Your task to perform on an android device: turn off notifications in google photos Image 0: 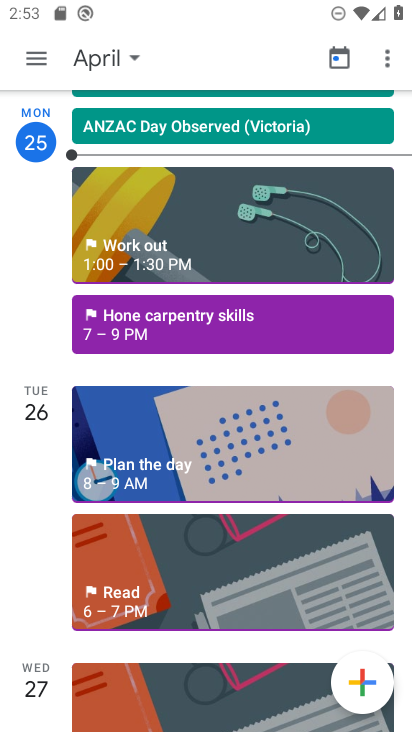
Step 0: press home button
Your task to perform on an android device: turn off notifications in google photos Image 1: 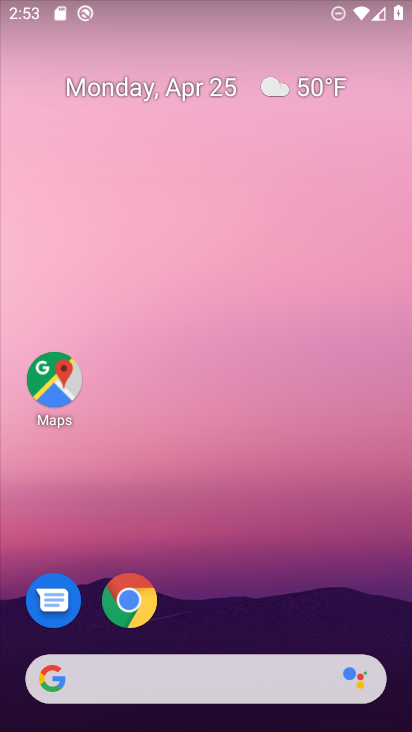
Step 1: drag from (202, 652) to (327, 38)
Your task to perform on an android device: turn off notifications in google photos Image 2: 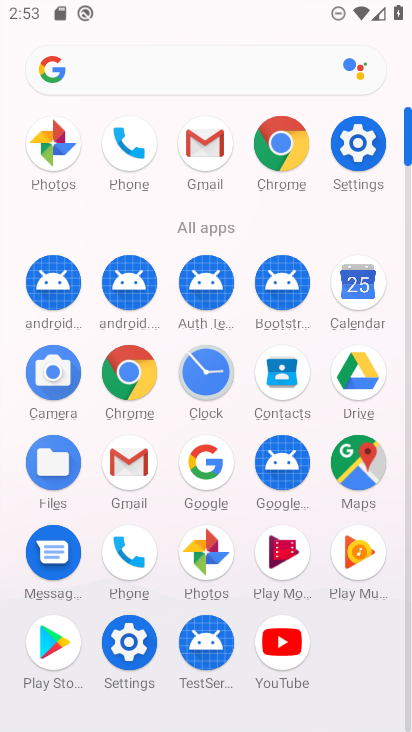
Step 2: click (196, 558)
Your task to perform on an android device: turn off notifications in google photos Image 3: 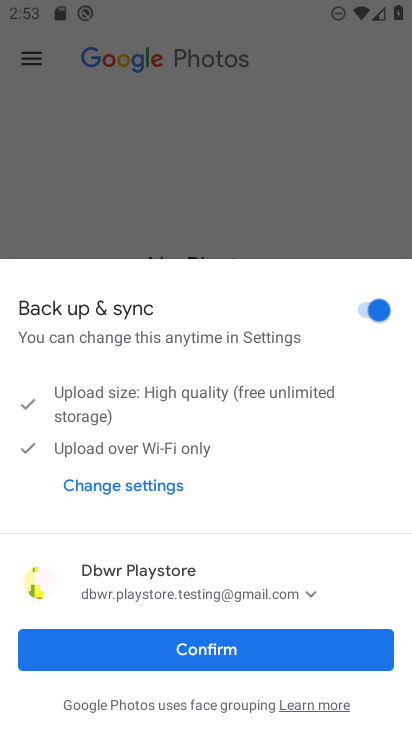
Step 3: click (187, 639)
Your task to perform on an android device: turn off notifications in google photos Image 4: 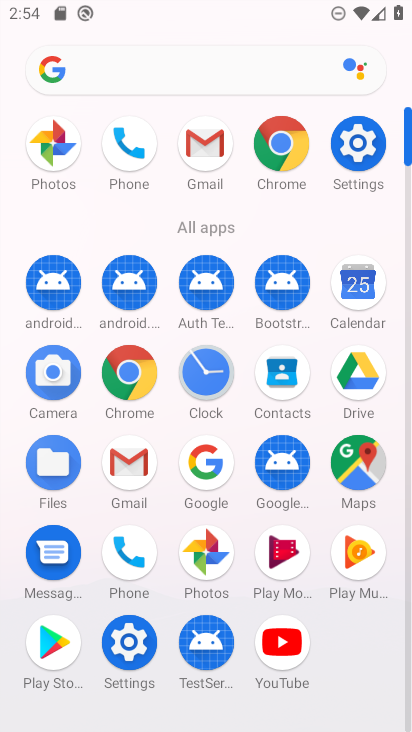
Step 4: click (212, 572)
Your task to perform on an android device: turn off notifications in google photos Image 5: 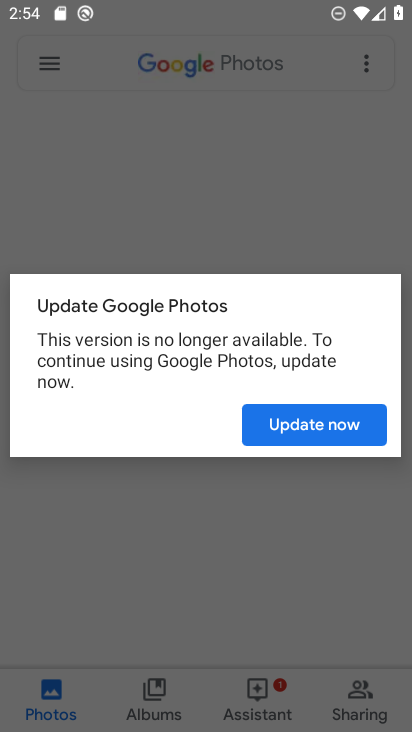
Step 5: click (331, 414)
Your task to perform on an android device: turn off notifications in google photos Image 6: 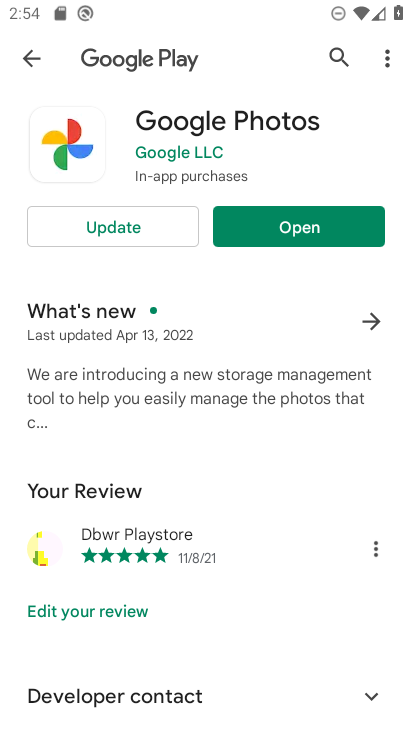
Step 6: click (295, 227)
Your task to perform on an android device: turn off notifications in google photos Image 7: 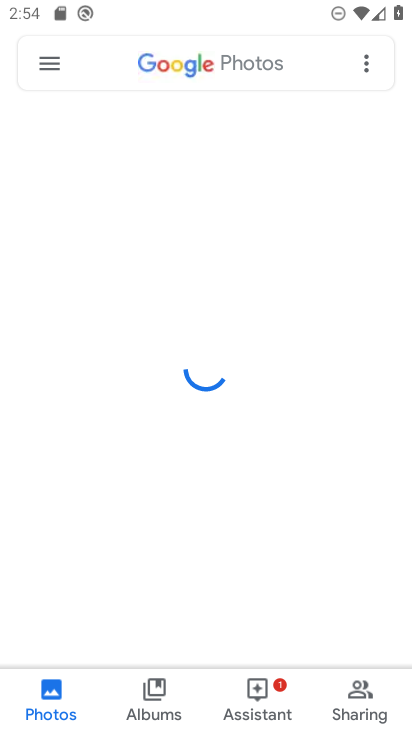
Step 7: click (47, 65)
Your task to perform on an android device: turn off notifications in google photos Image 8: 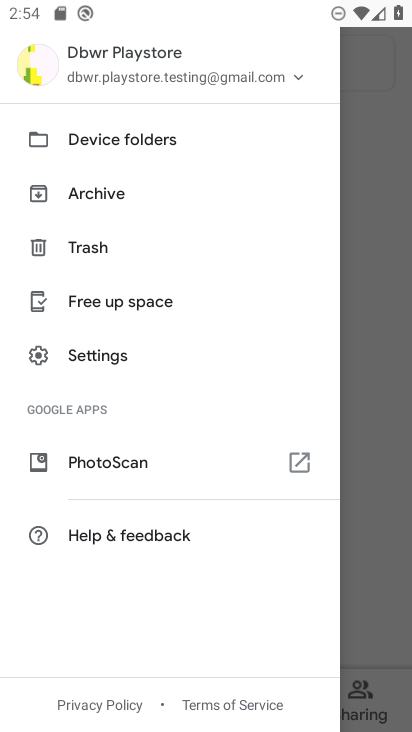
Step 8: click (88, 356)
Your task to perform on an android device: turn off notifications in google photos Image 9: 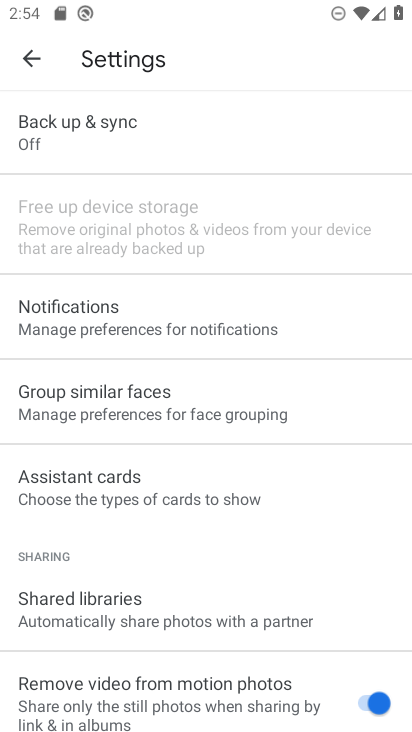
Step 9: click (152, 310)
Your task to perform on an android device: turn off notifications in google photos Image 10: 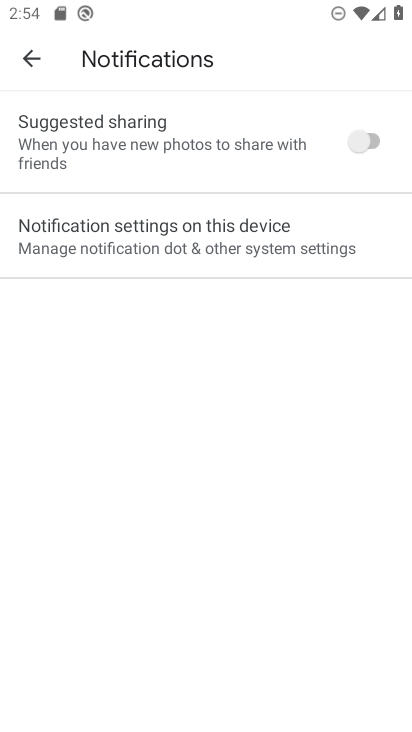
Step 10: click (325, 256)
Your task to perform on an android device: turn off notifications in google photos Image 11: 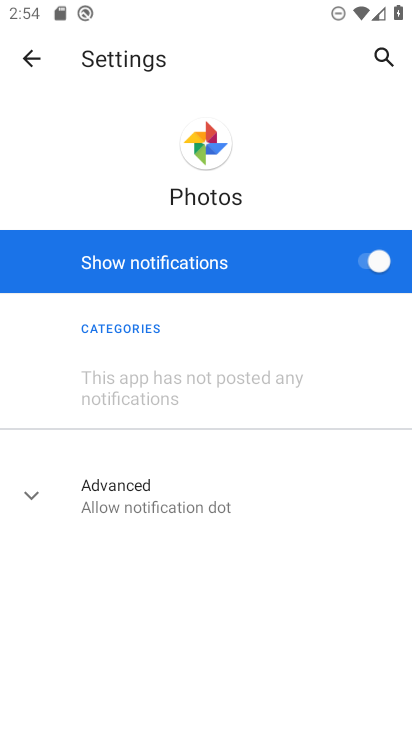
Step 11: click (368, 273)
Your task to perform on an android device: turn off notifications in google photos Image 12: 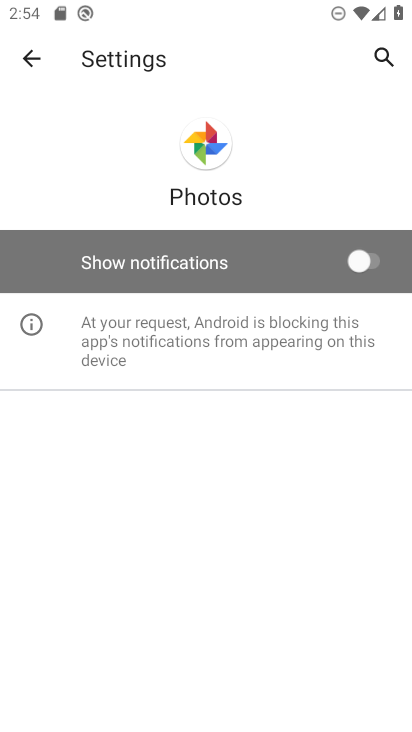
Step 12: task complete